Your task to perform on an android device: Search for sushi restaurants on Maps Image 0: 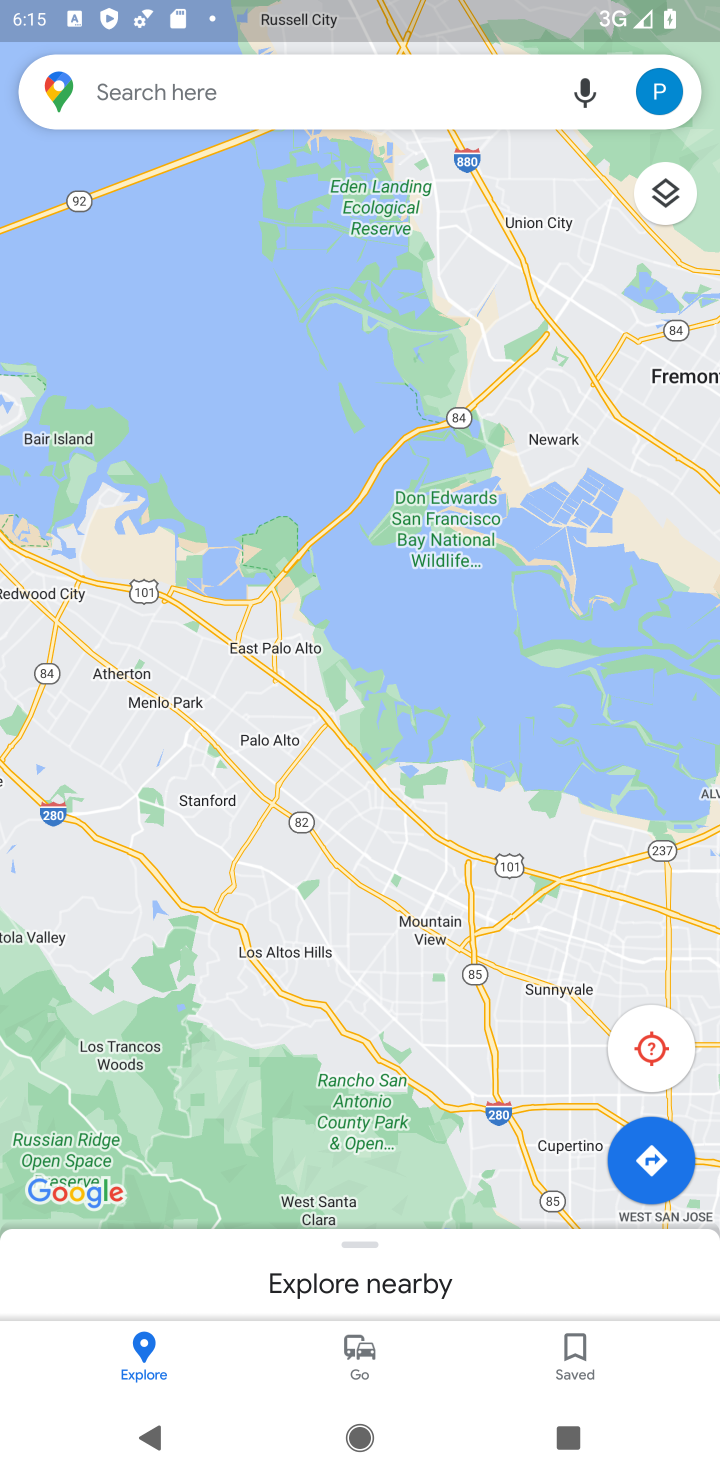
Step 0: click (218, 90)
Your task to perform on an android device: Search for sushi restaurants on Maps Image 1: 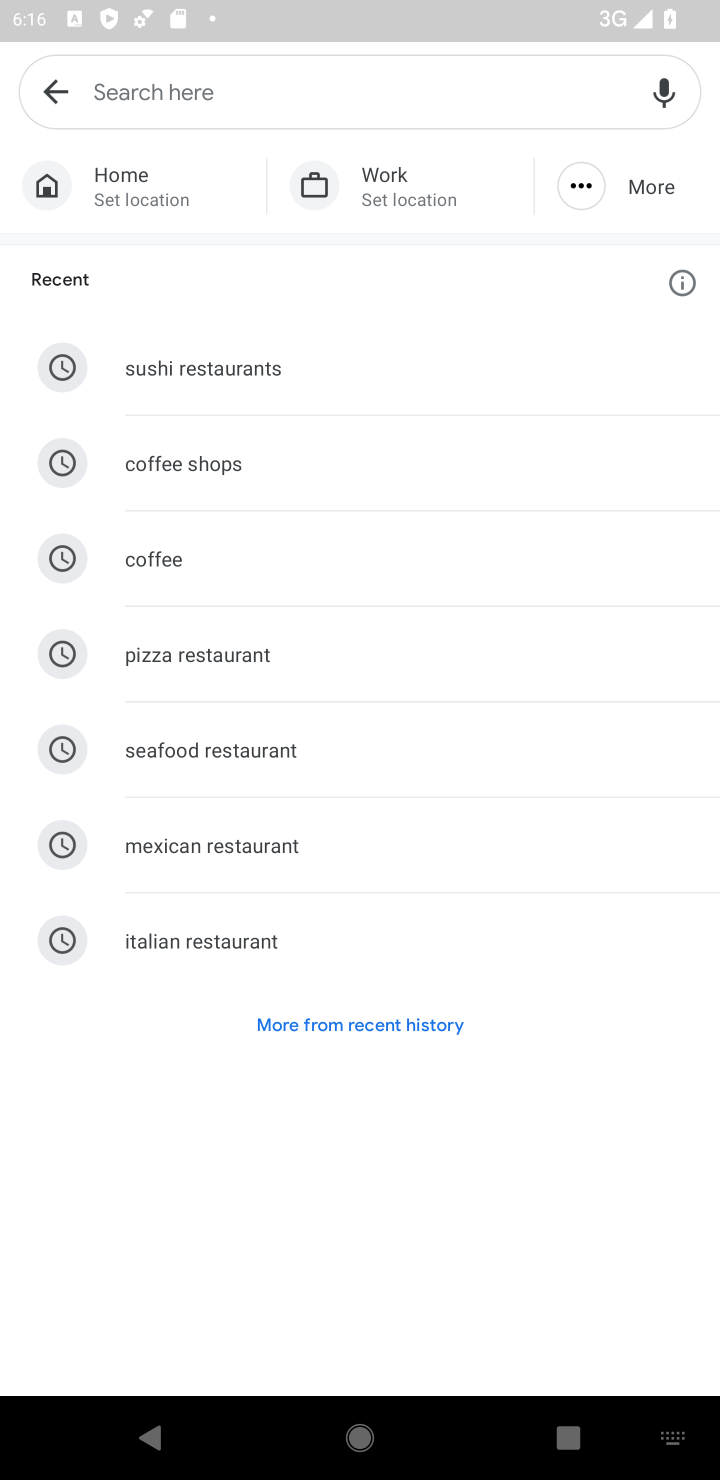
Step 1: type "sushi restaurants"
Your task to perform on an android device: Search for sushi restaurants on Maps Image 2: 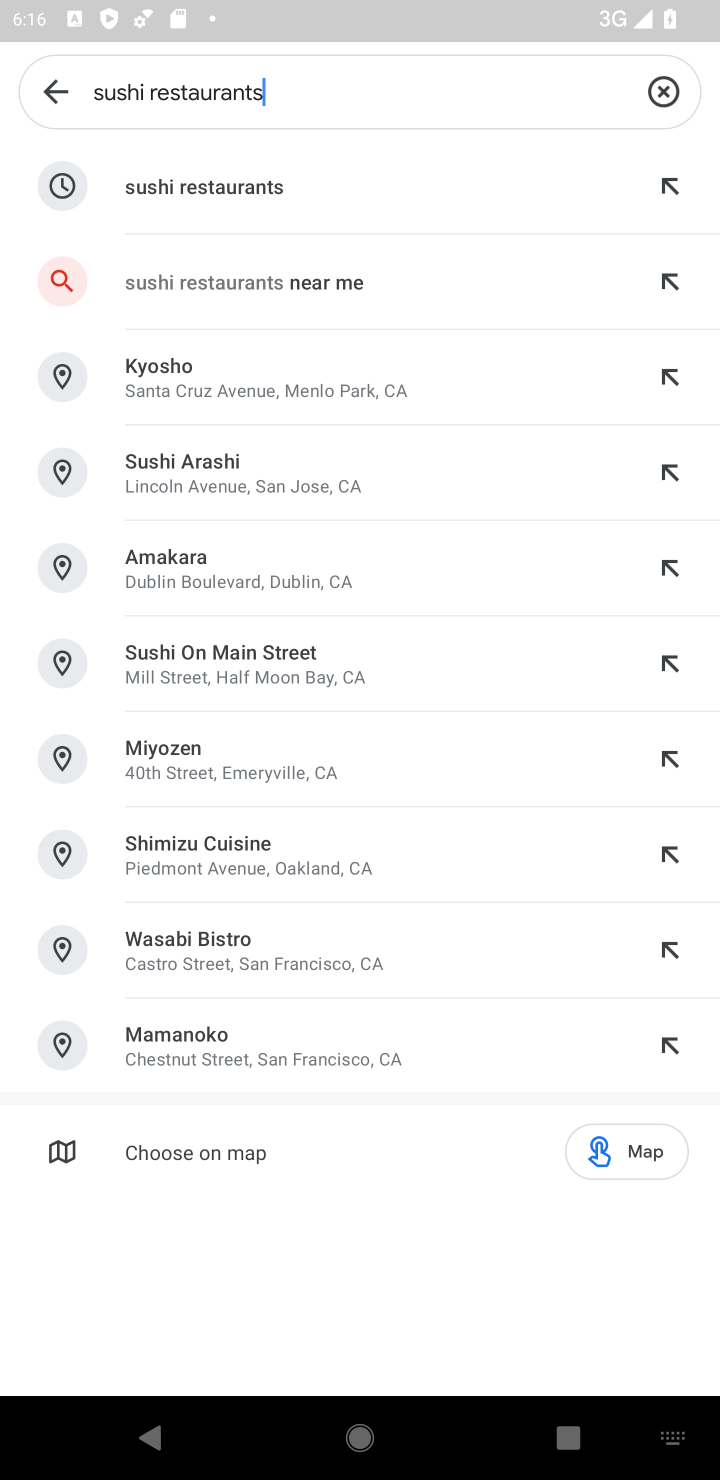
Step 2: click (206, 177)
Your task to perform on an android device: Search for sushi restaurants on Maps Image 3: 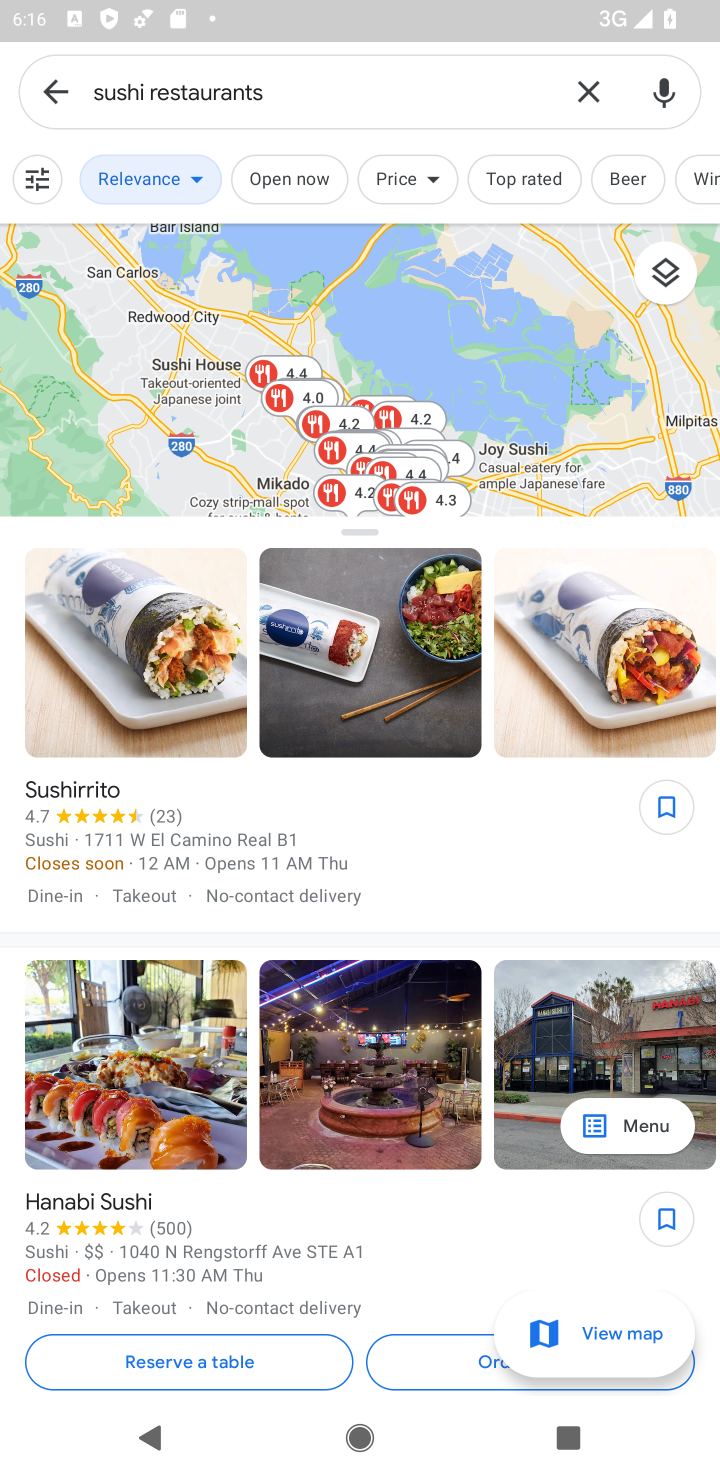
Step 3: task complete